Your task to perform on an android device: turn on bluetooth scan Image 0: 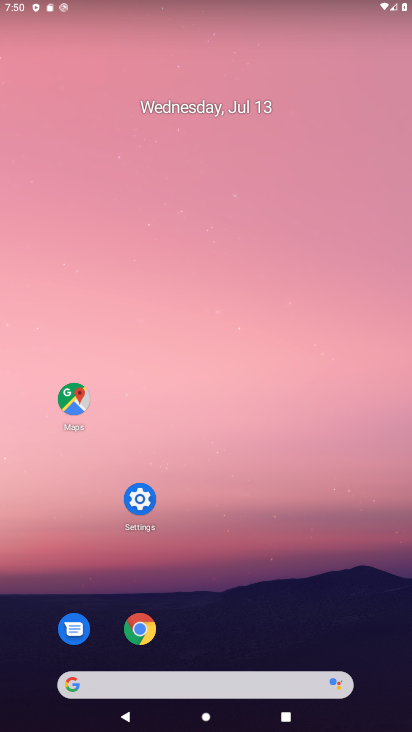
Step 0: click (134, 498)
Your task to perform on an android device: turn on bluetooth scan Image 1: 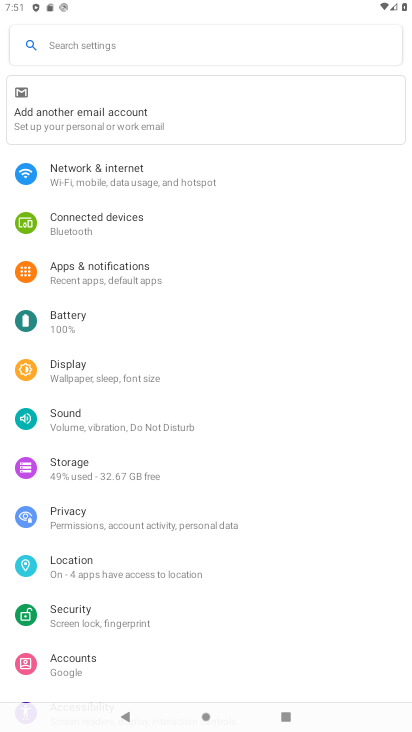
Step 1: click (69, 564)
Your task to perform on an android device: turn on bluetooth scan Image 2: 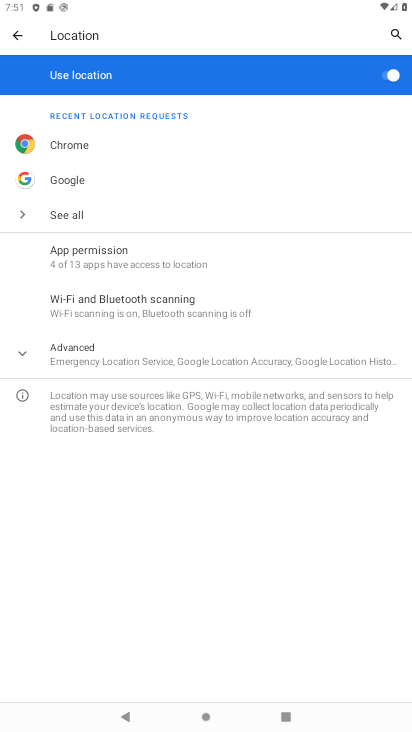
Step 2: click (30, 357)
Your task to perform on an android device: turn on bluetooth scan Image 3: 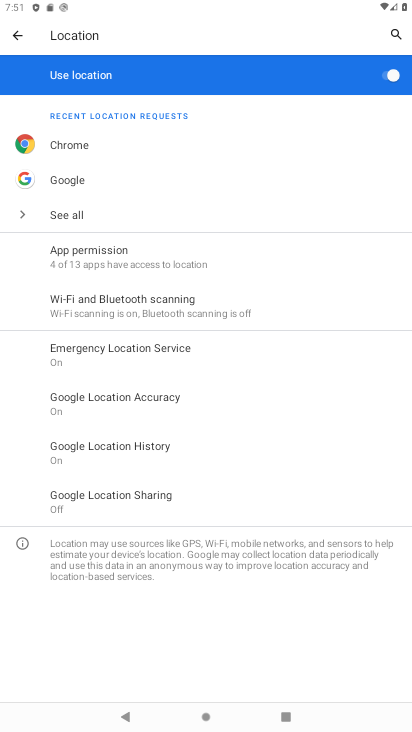
Step 3: click (143, 301)
Your task to perform on an android device: turn on bluetooth scan Image 4: 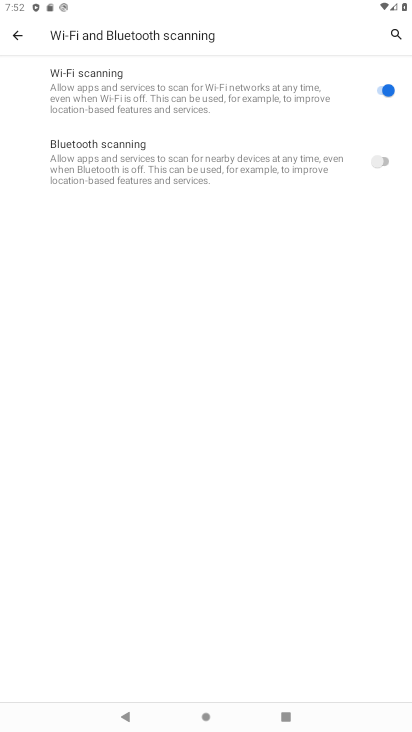
Step 4: click (386, 157)
Your task to perform on an android device: turn on bluetooth scan Image 5: 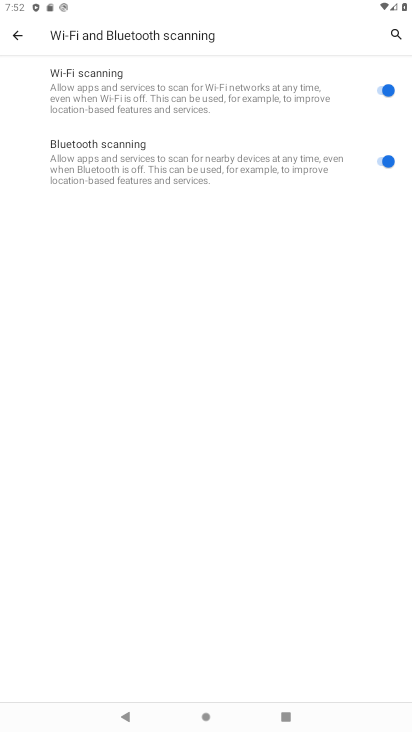
Step 5: task complete